Your task to perform on an android device: change notifications settings Image 0: 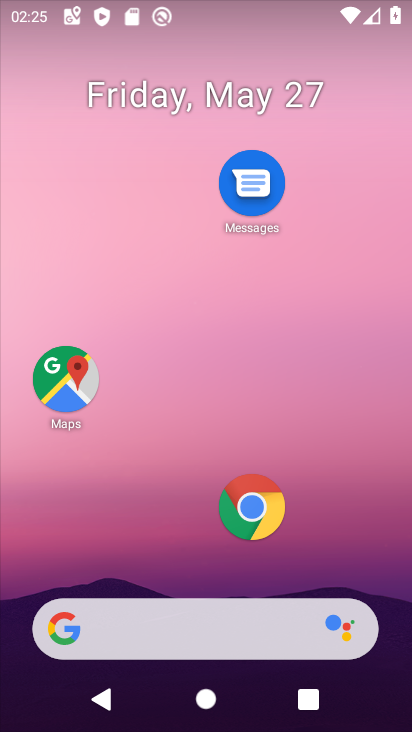
Step 0: drag from (206, 576) to (208, 16)
Your task to perform on an android device: change notifications settings Image 1: 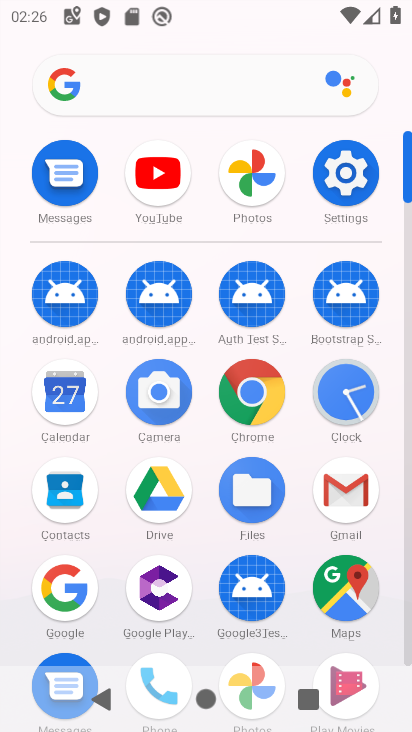
Step 1: click (350, 184)
Your task to perform on an android device: change notifications settings Image 2: 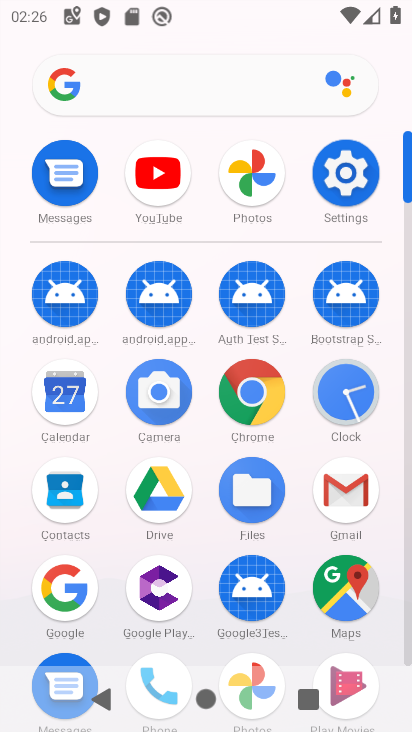
Step 2: click (350, 183)
Your task to perform on an android device: change notifications settings Image 3: 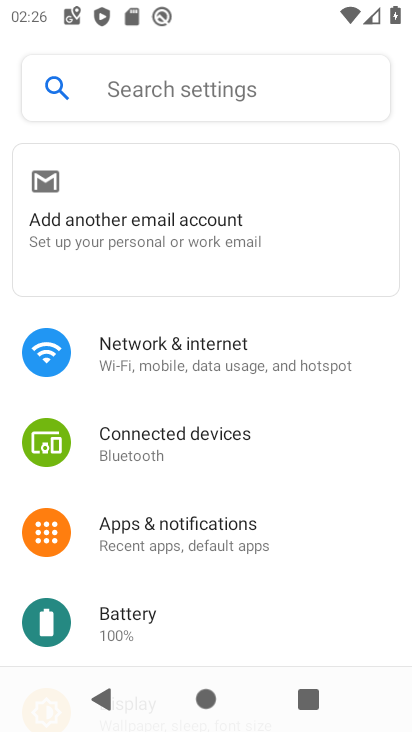
Step 3: click (167, 546)
Your task to perform on an android device: change notifications settings Image 4: 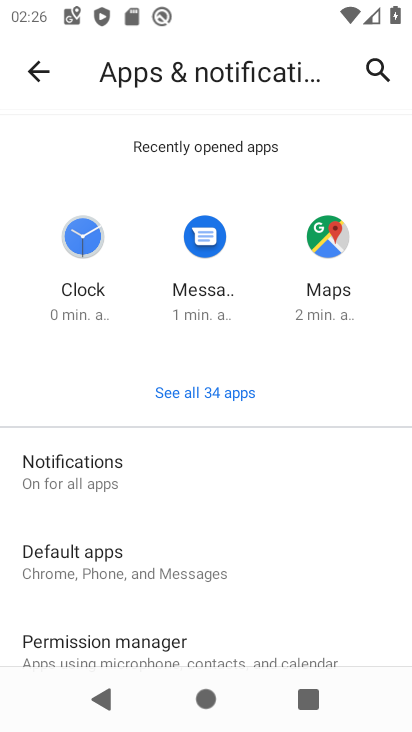
Step 4: drag from (220, 507) to (381, 214)
Your task to perform on an android device: change notifications settings Image 5: 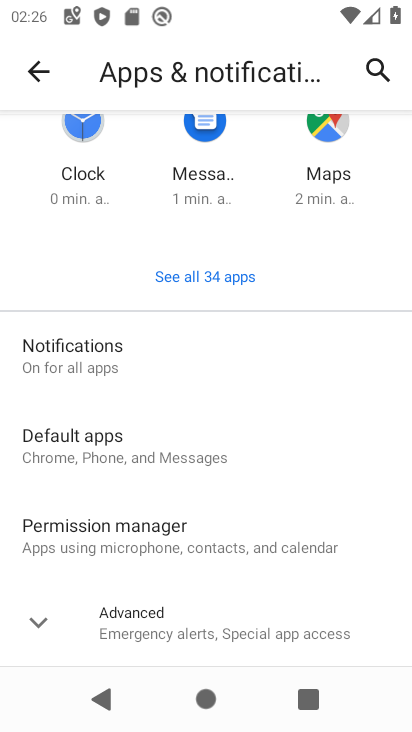
Step 5: click (131, 342)
Your task to perform on an android device: change notifications settings Image 6: 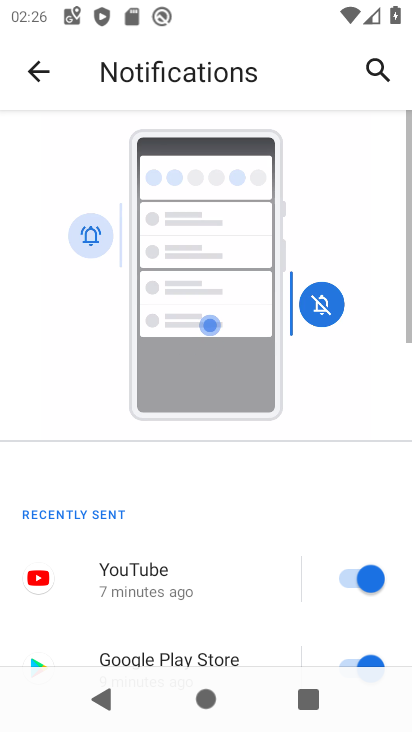
Step 6: drag from (223, 534) to (326, 92)
Your task to perform on an android device: change notifications settings Image 7: 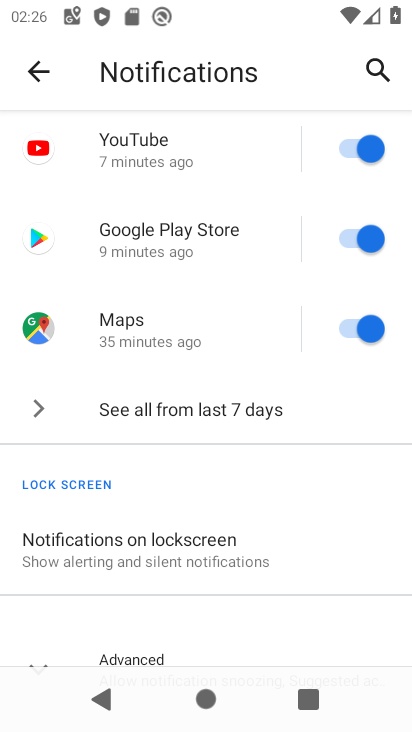
Step 7: drag from (276, 568) to (340, 221)
Your task to perform on an android device: change notifications settings Image 8: 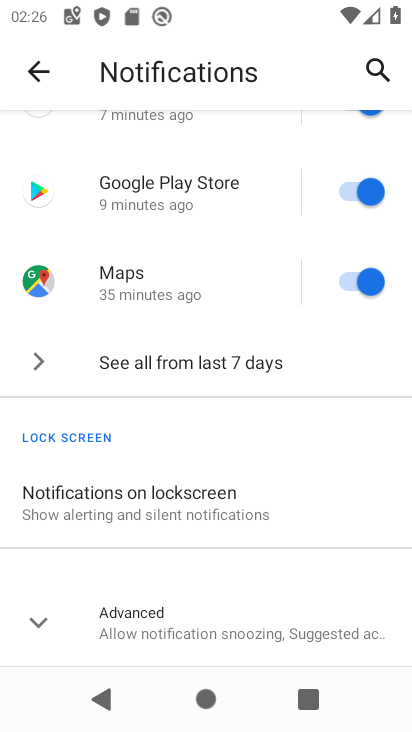
Step 8: click (178, 645)
Your task to perform on an android device: change notifications settings Image 9: 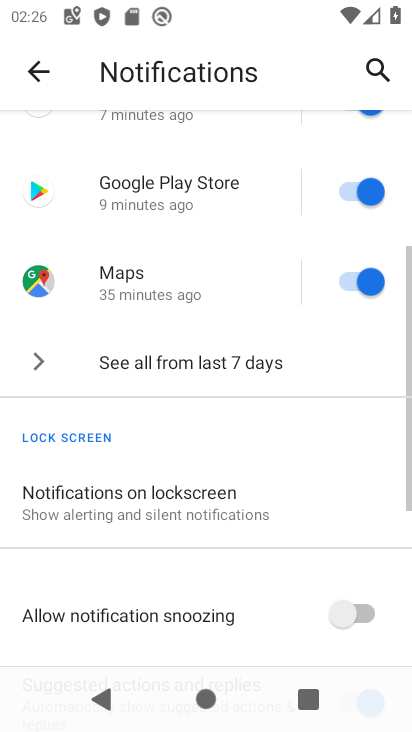
Step 9: click (339, 605)
Your task to perform on an android device: change notifications settings Image 10: 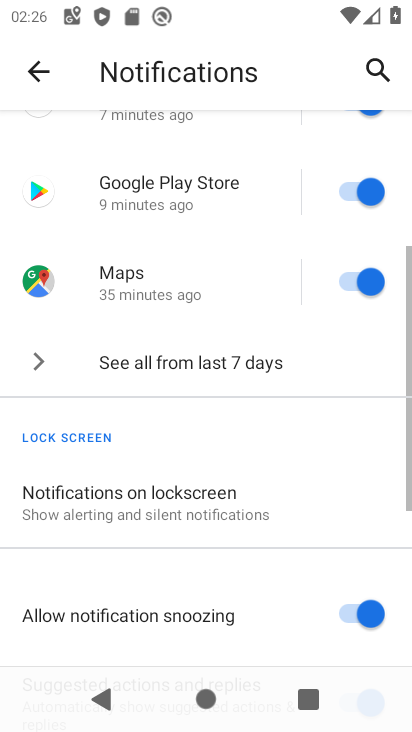
Step 10: task complete